Your task to perform on an android device: Go to privacy settings Image 0: 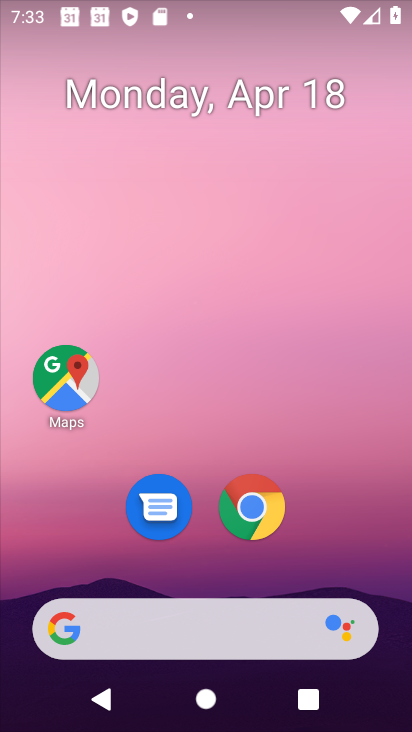
Step 0: drag from (3, 517) to (337, 65)
Your task to perform on an android device: Go to privacy settings Image 1: 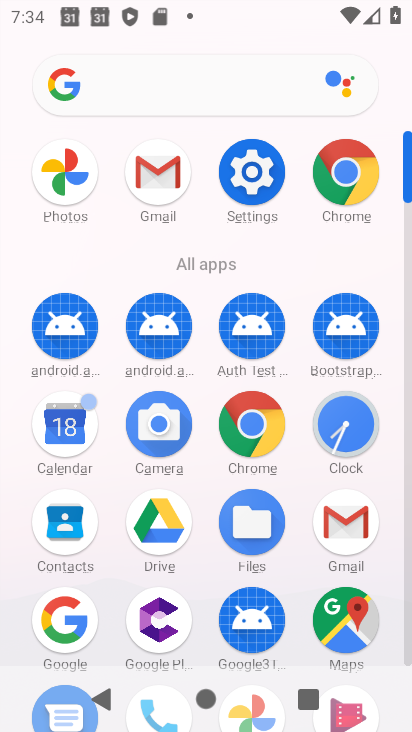
Step 1: click (253, 195)
Your task to perform on an android device: Go to privacy settings Image 2: 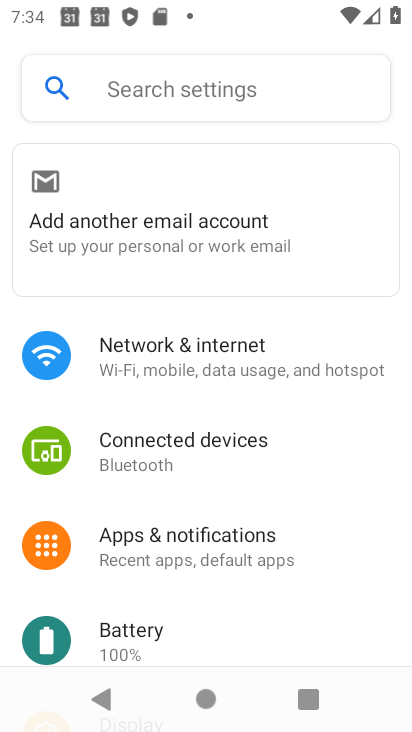
Step 2: drag from (51, 622) to (155, 113)
Your task to perform on an android device: Go to privacy settings Image 3: 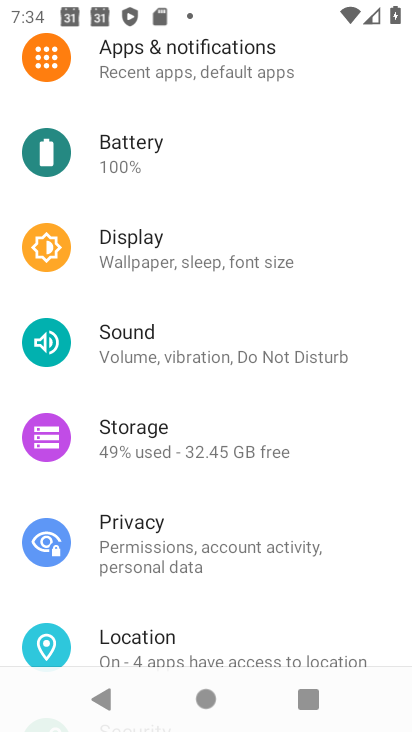
Step 3: drag from (110, 544) to (201, 97)
Your task to perform on an android device: Go to privacy settings Image 4: 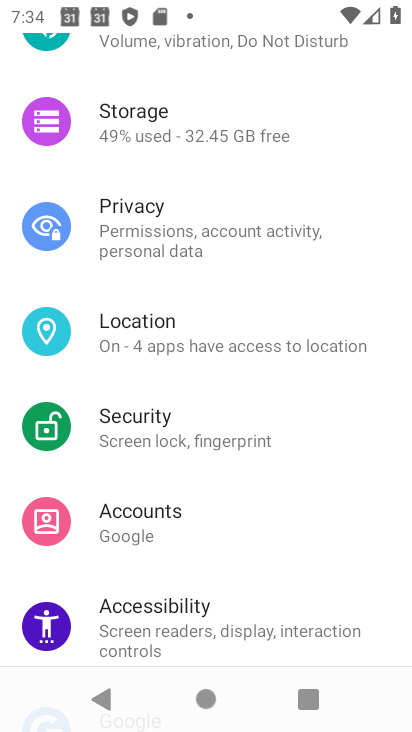
Step 4: drag from (165, 543) to (234, 334)
Your task to perform on an android device: Go to privacy settings Image 5: 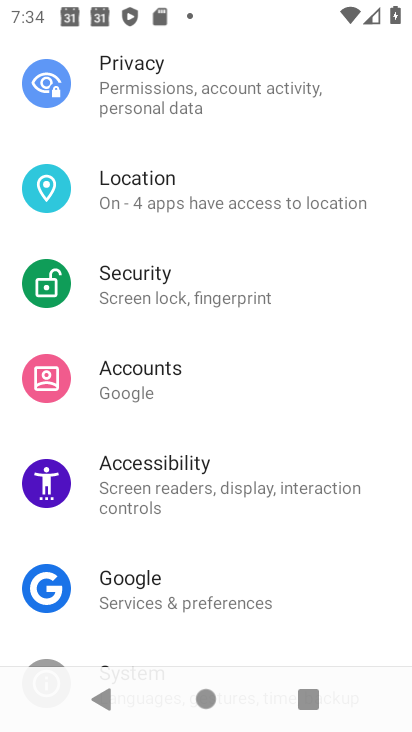
Step 5: click (221, 91)
Your task to perform on an android device: Go to privacy settings Image 6: 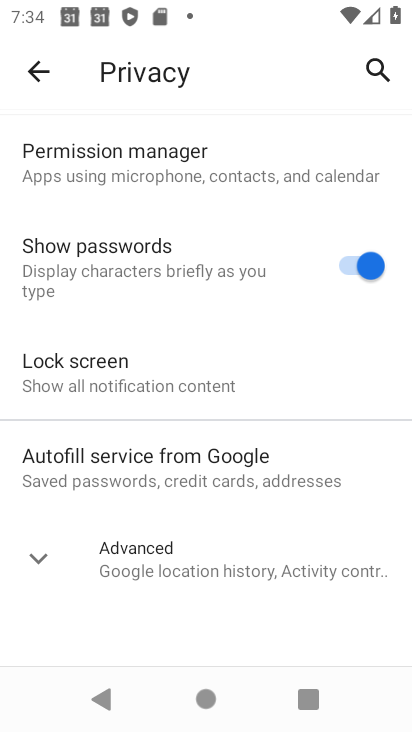
Step 6: task complete